Your task to perform on an android device: When is my next meeting? Image 0: 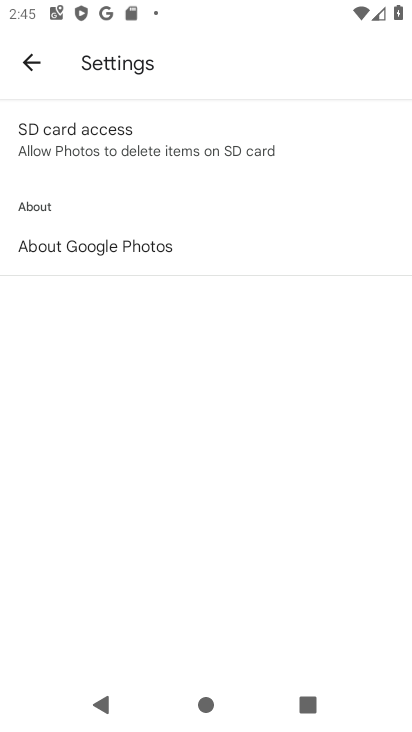
Step 0: press home button
Your task to perform on an android device: When is my next meeting? Image 1: 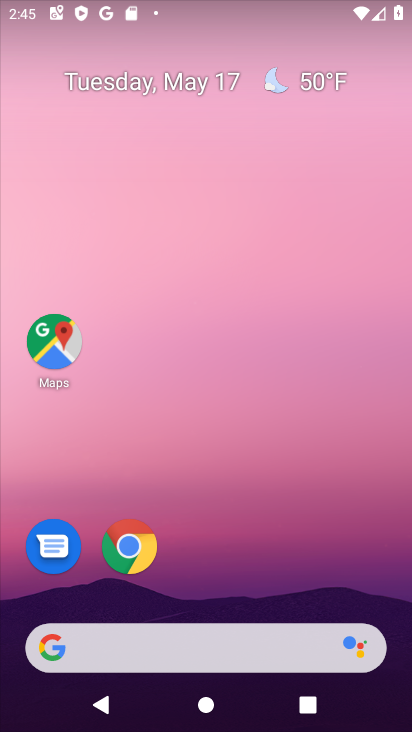
Step 1: drag from (250, 554) to (226, 15)
Your task to perform on an android device: When is my next meeting? Image 2: 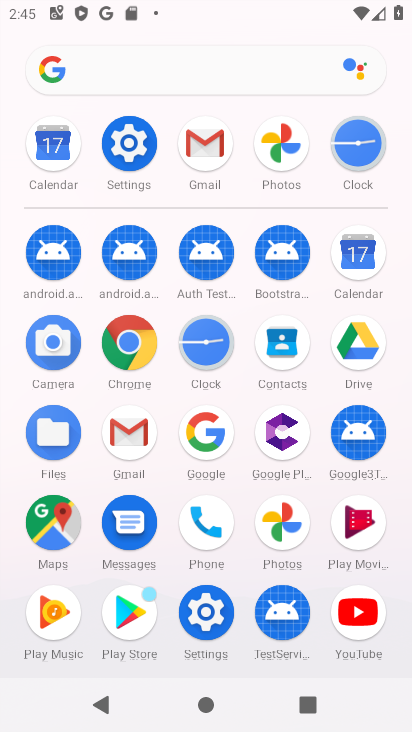
Step 2: click (373, 249)
Your task to perform on an android device: When is my next meeting? Image 3: 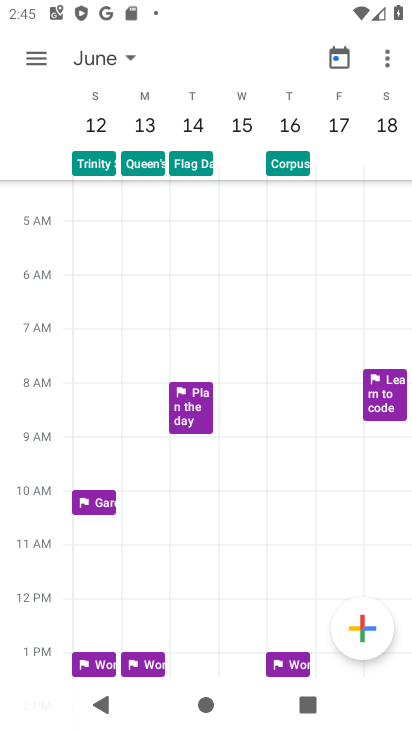
Step 3: click (107, 51)
Your task to perform on an android device: When is my next meeting? Image 4: 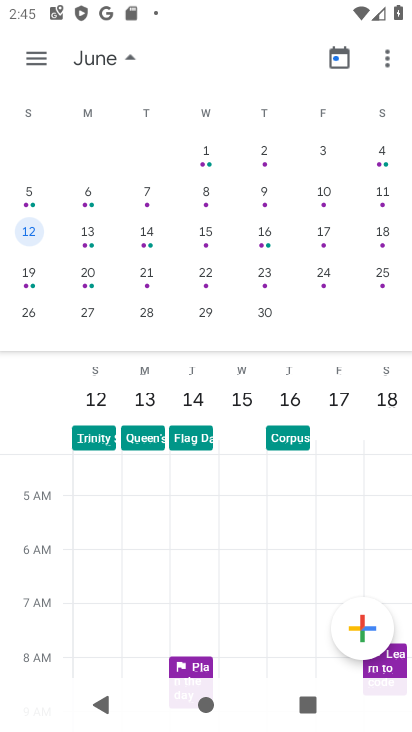
Step 4: drag from (103, 187) to (390, 265)
Your task to perform on an android device: When is my next meeting? Image 5: 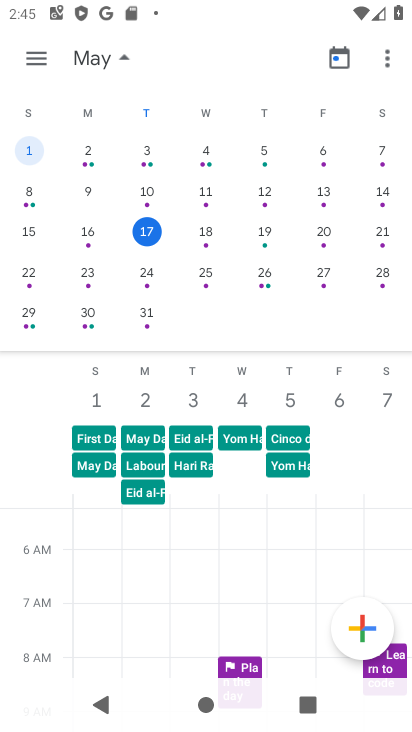
Step 5: click (153, 225)
Your task to perform on an android device: When is my next meeting? Image 6: 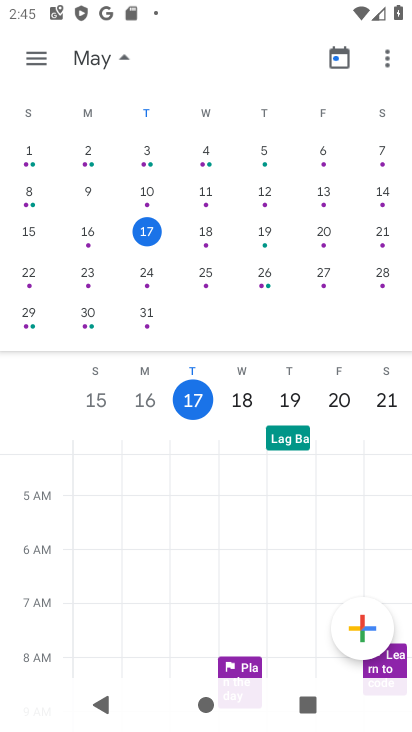
Step 6: click (36, 60)
Your task to perform on an android device: When is my next meeting? Image 7: 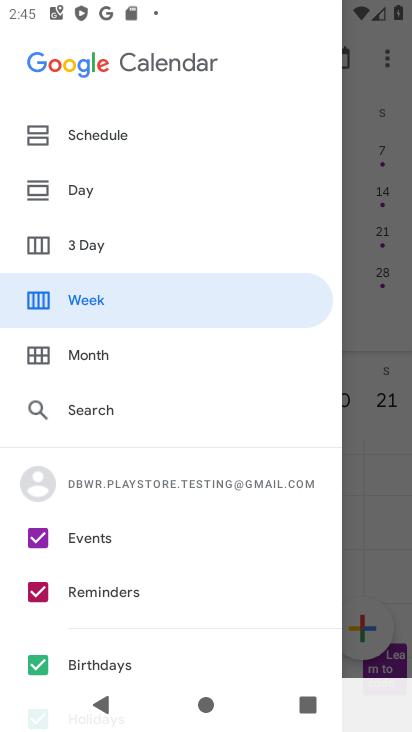
Step 7: click (102, 136)
Your task to perform on an android device: When is my next meeting? Image 8: 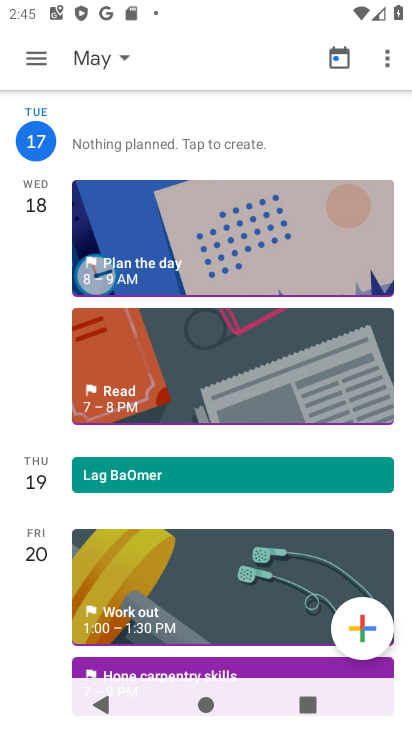
Step 8: drag from (184, 594) to (240, 310)
Your task to perform on an android device: When is my next meeting? Image 9: 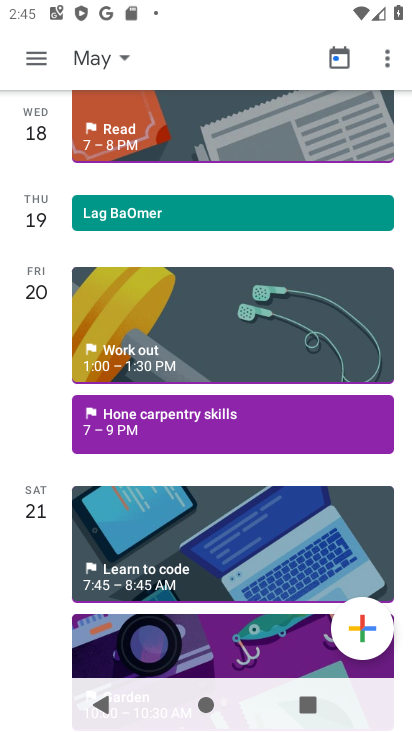
Step 9: drag from (241, 559) to (285, 248)
Your task to perform on an android device: When is my next meeting? Image 10: 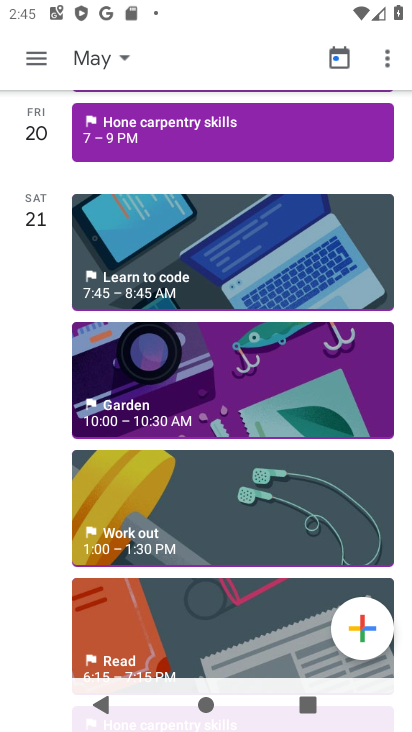
Step 10: drag from (257, 542) to (305, 268)
Your task to perform on an android device: When is my next meeting? Image 11: 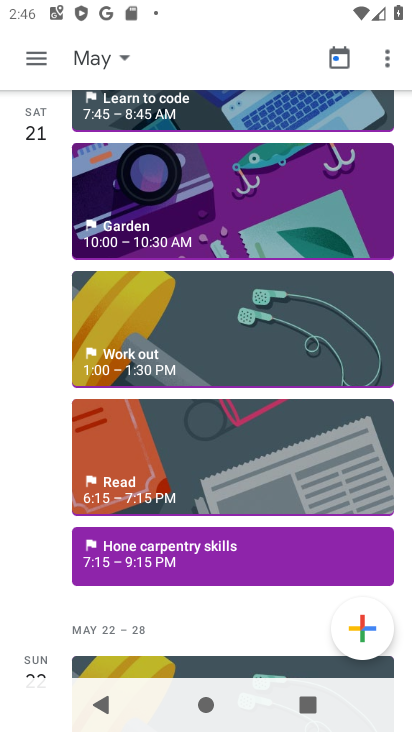
Step 11: drag from (290, 477) to (313, 222)
Your task to perform on an android device: When is my next meeting? Image 12: 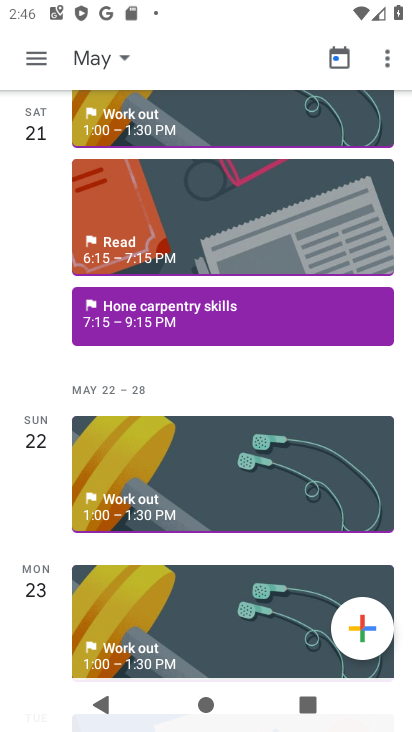
Step 12: click (266, 354)
Your task to perform on an android device: When is my next meeting? Image 13: 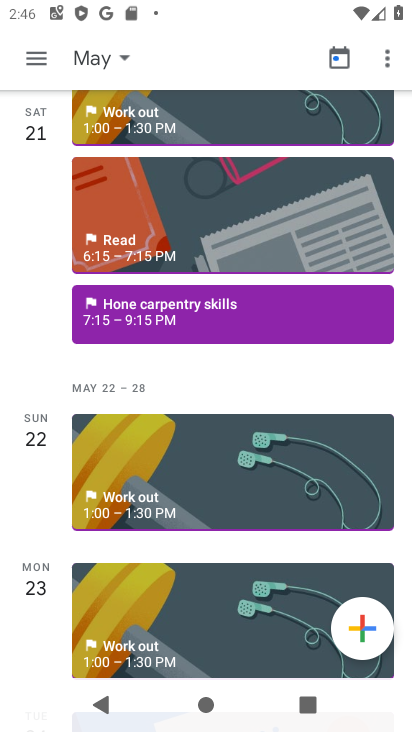
Step 13: task complete